Your task to perform on an android device: change the clock display to digital Image 0: 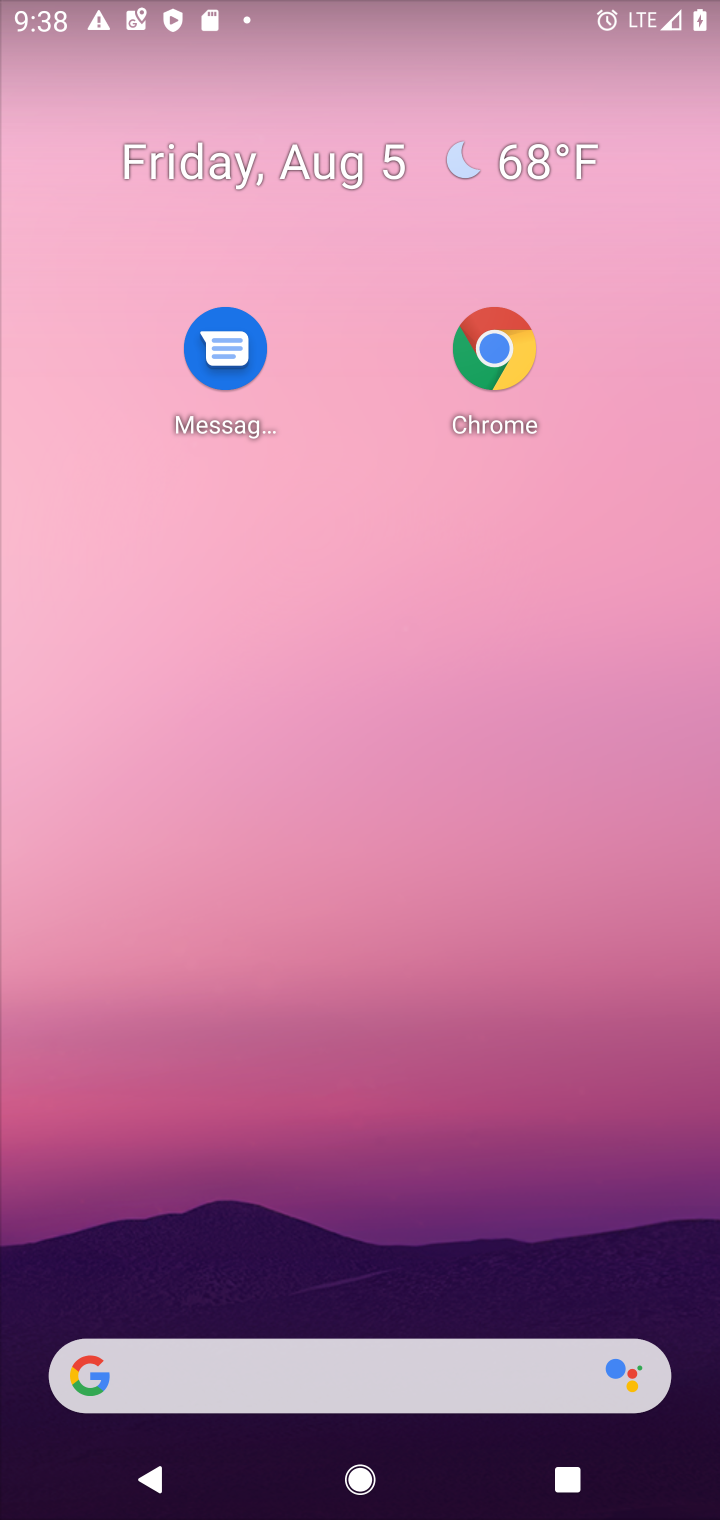
Step 0: drag from (525, 1281) to (436, 586)
Your task to perform on an android device: change the clock display to digital Image 1: 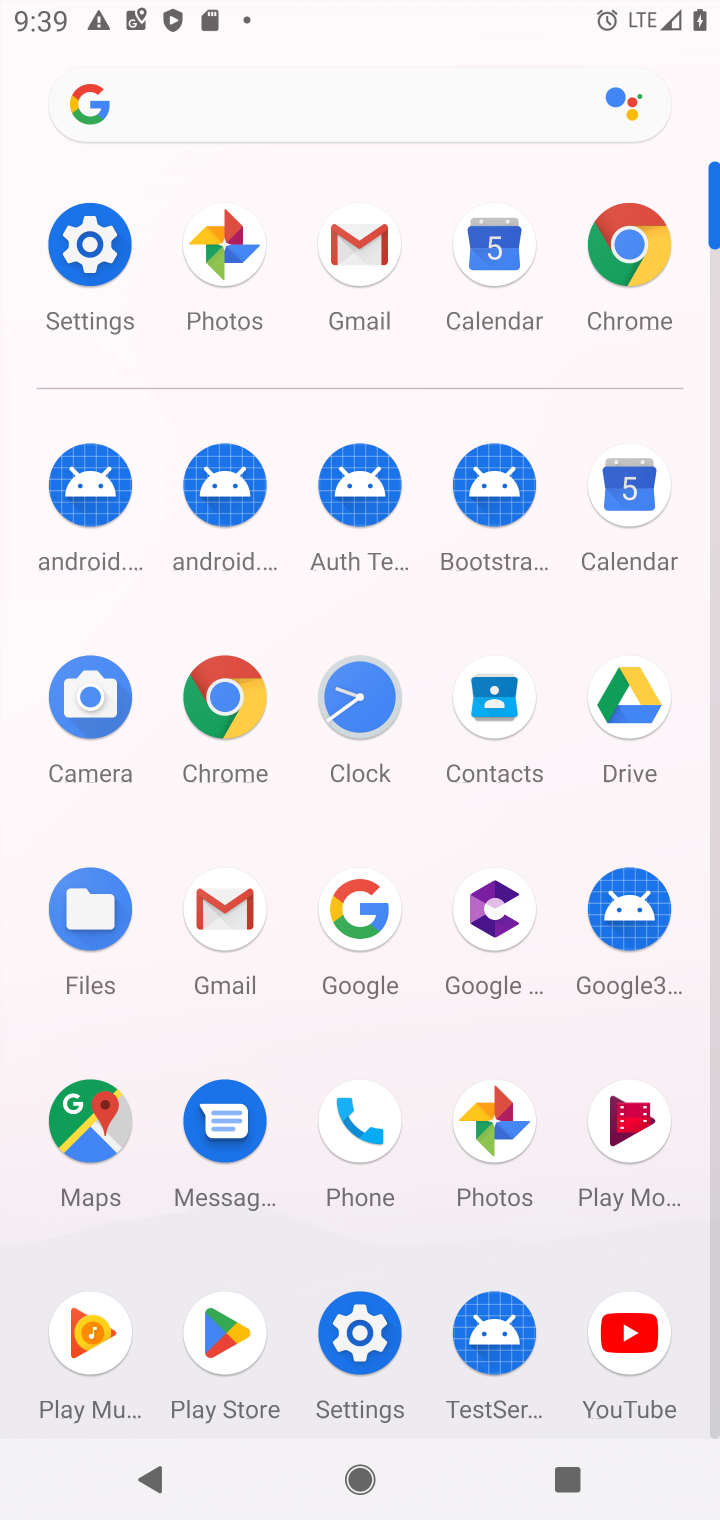
Step 1: click (355, 697)
Your task to perform on an android device: change the clock display to digital Image 2: 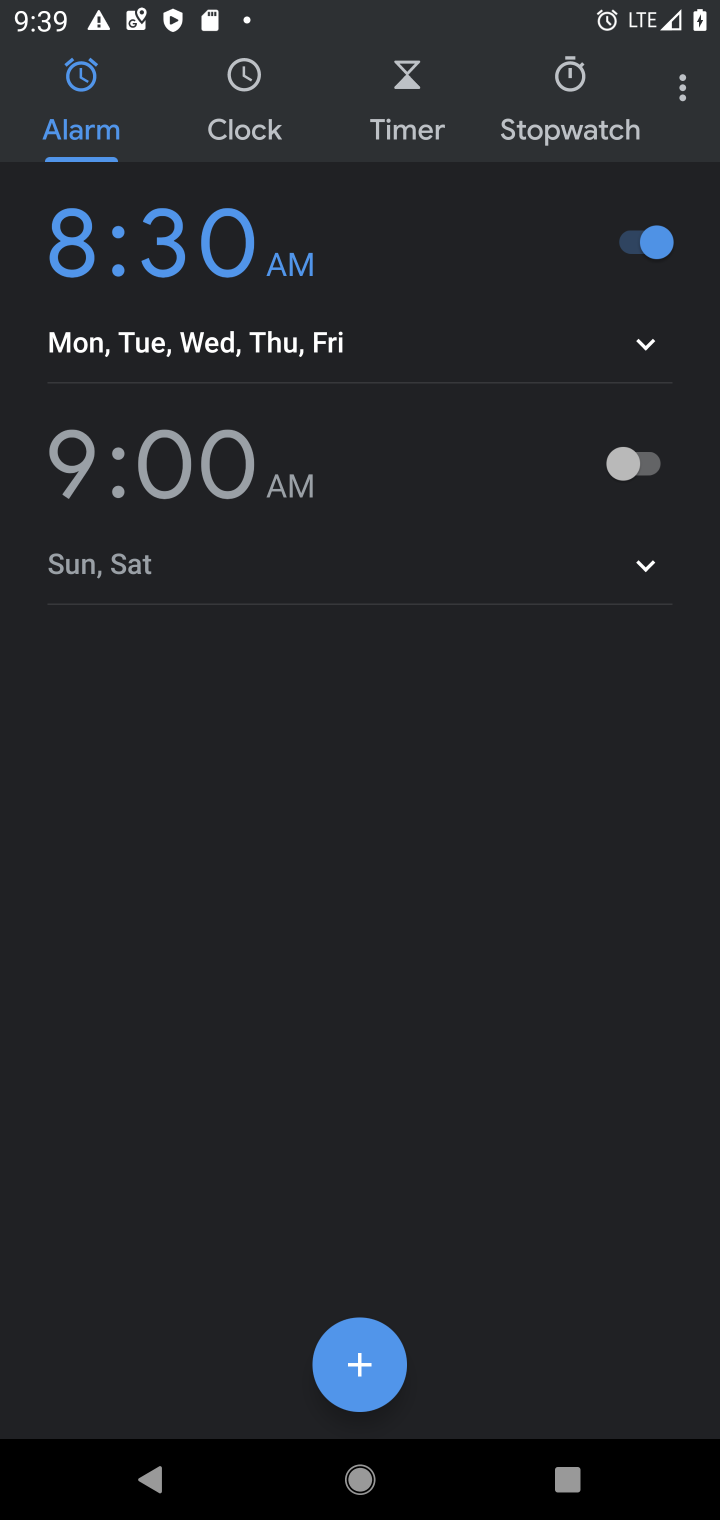
Step 2: click (656, 99)
Your task to perform on an android device: change the clock display to digital Image 3: 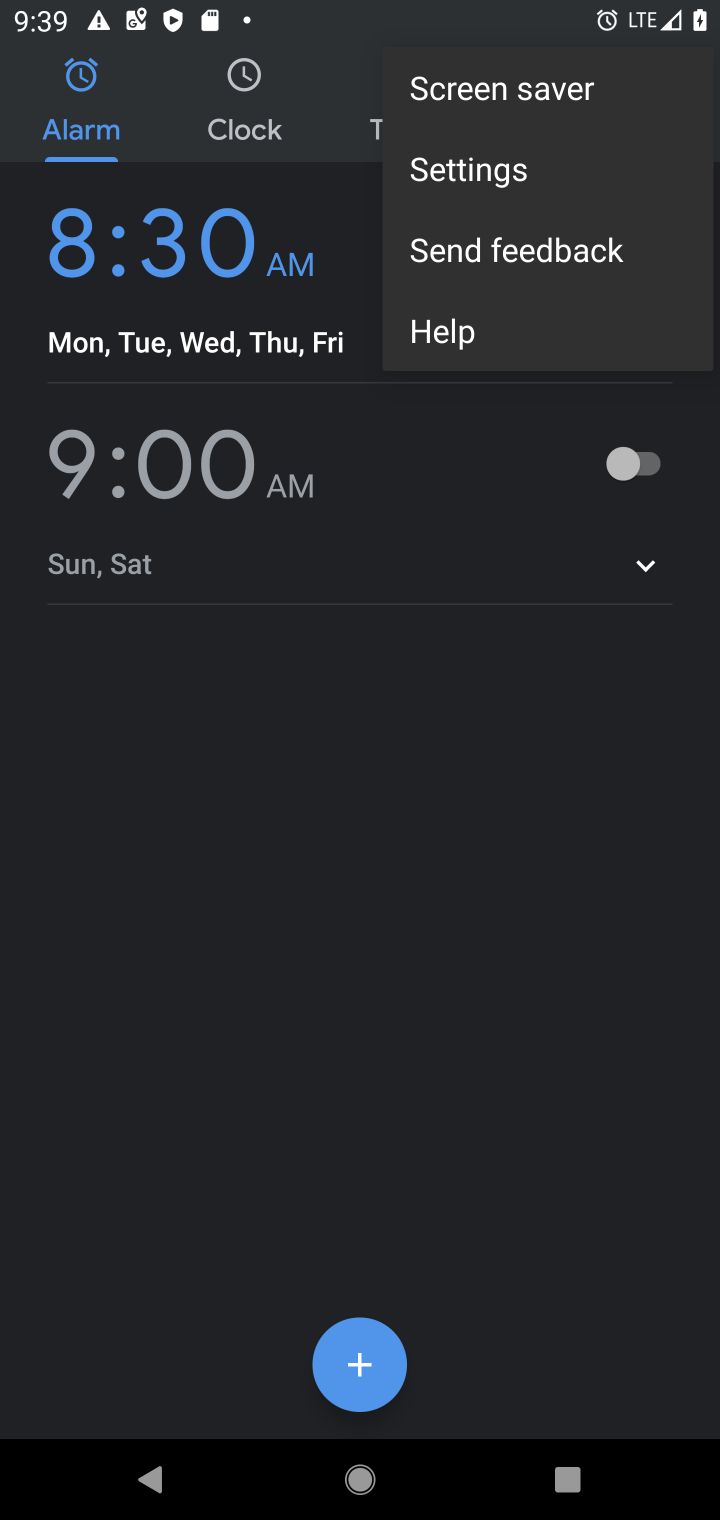
Step 3: click (504, 178)
Your task to perform on an android device: change the clock display to digital Image 4: 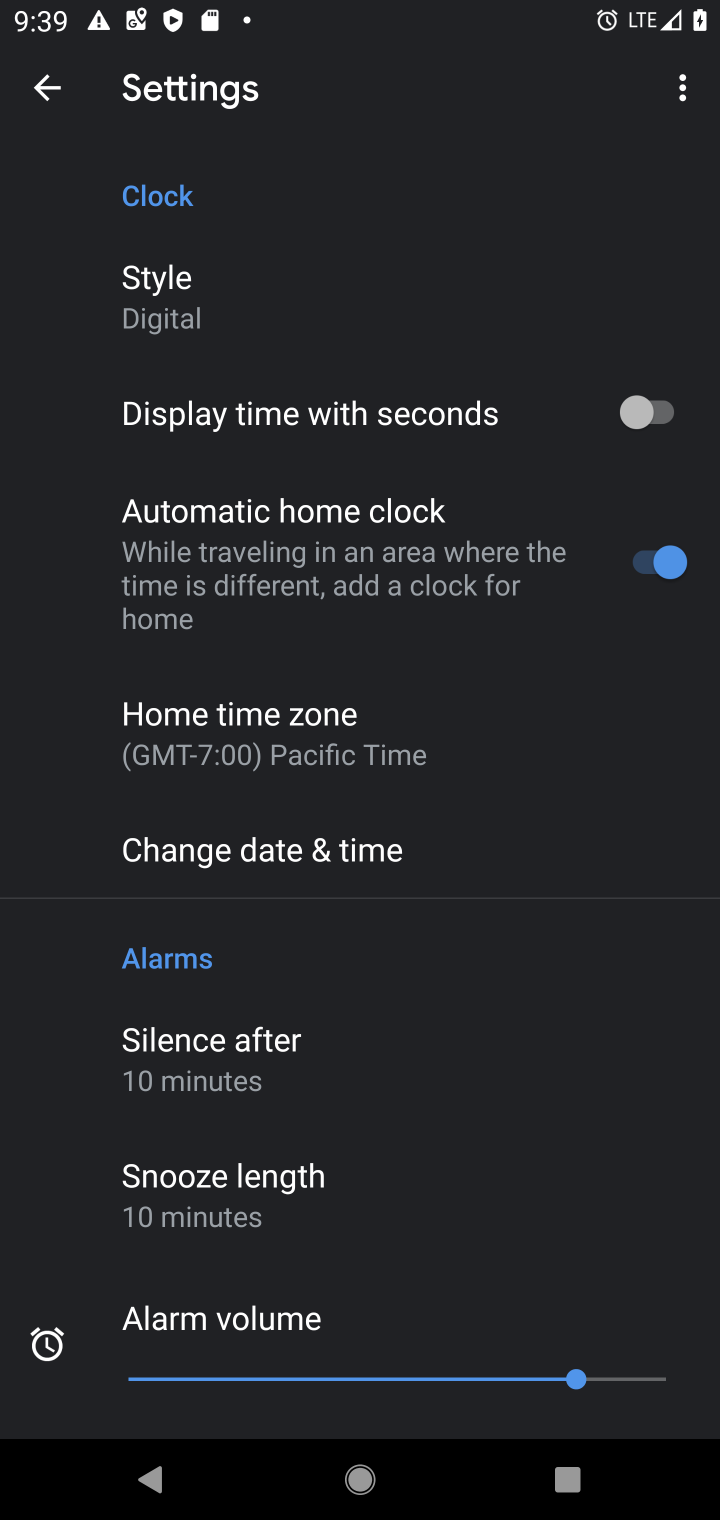
Step 4: click (271, 303)
Your task to perform on an android device: change the clock display to digital Image 5: 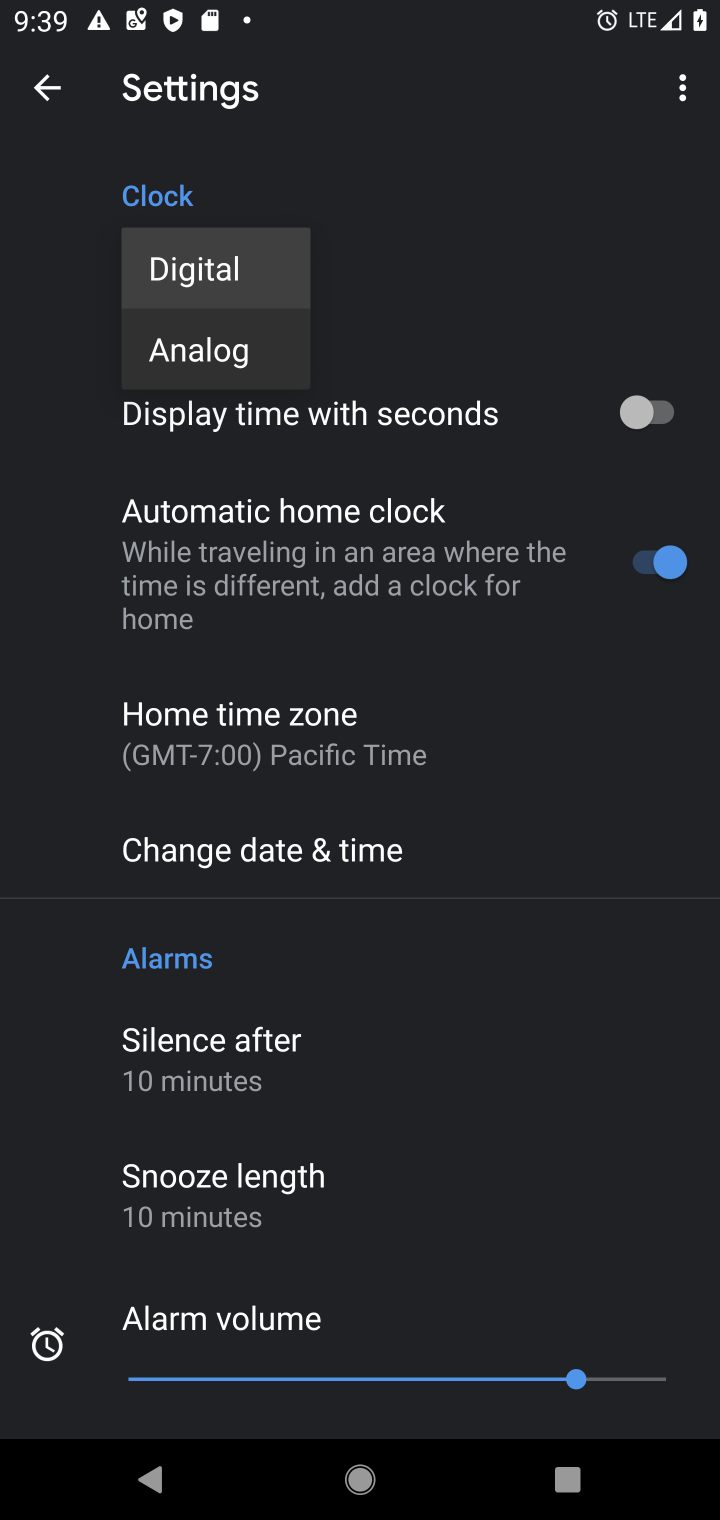
Step 5: click (265, 272)
Your task to perform on an android device: change the clock display to digital Image 6: 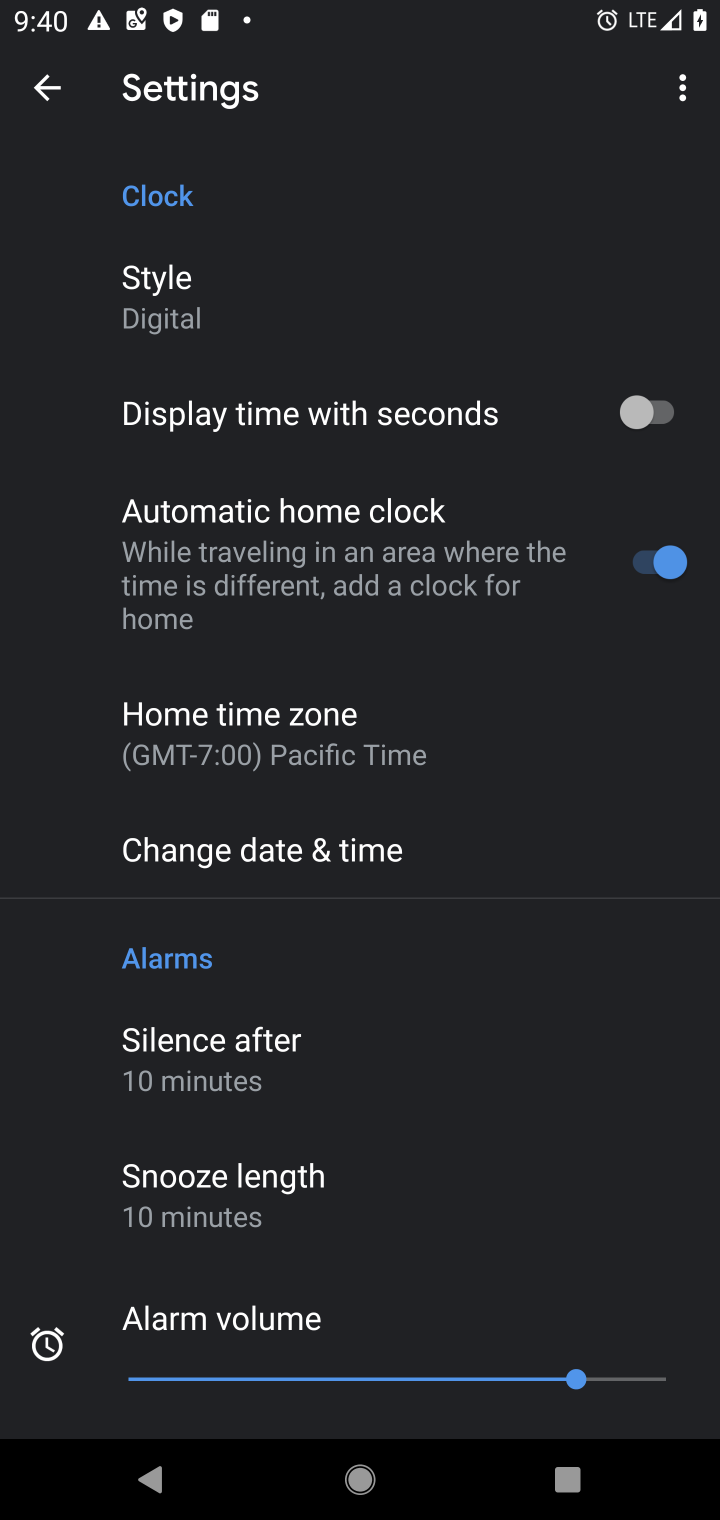
Step 6: task complete